Your task to perform on an android device: check storage Image 0: 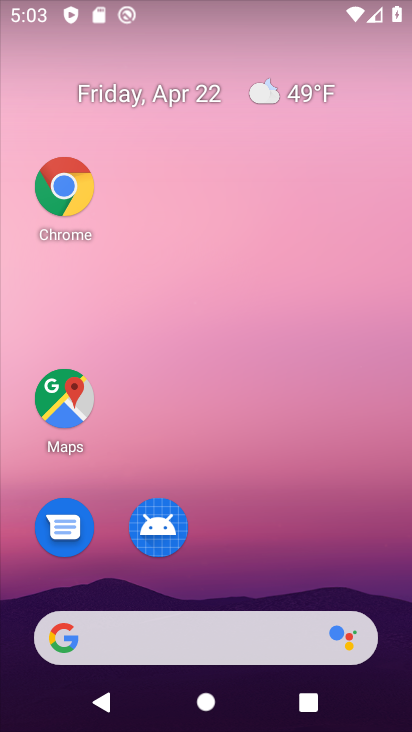
Step 0: drag from (272, 701) to (210, 99)
Your task to perform on an android device: check storage Image 1: 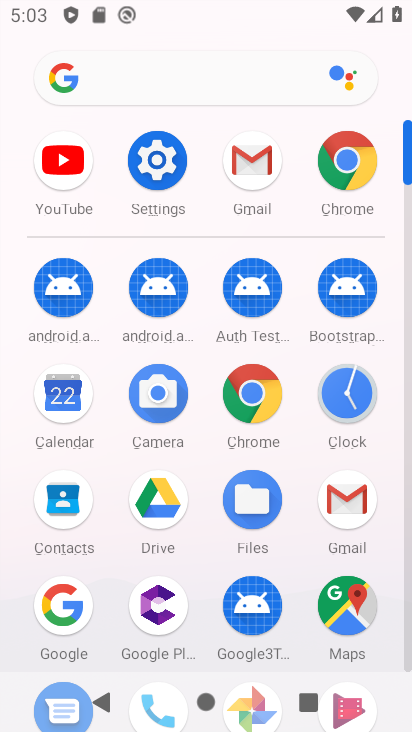
Step 1: click (155, 161)
Your task to perform on an android device: check storage Image 2: 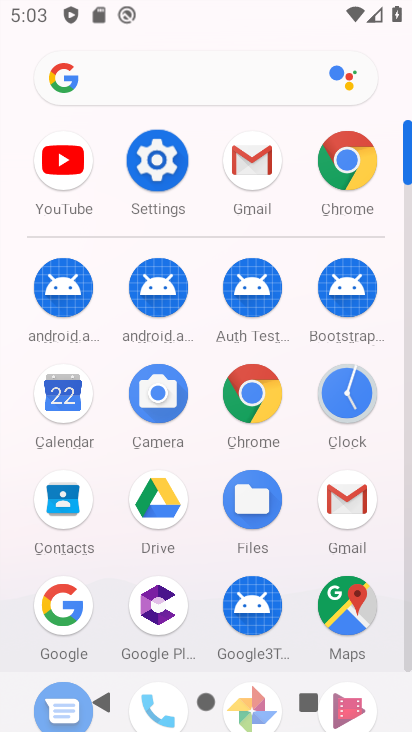
Step 2: click (155, 161)
Your task to perform on an android device: check storage Image 3: 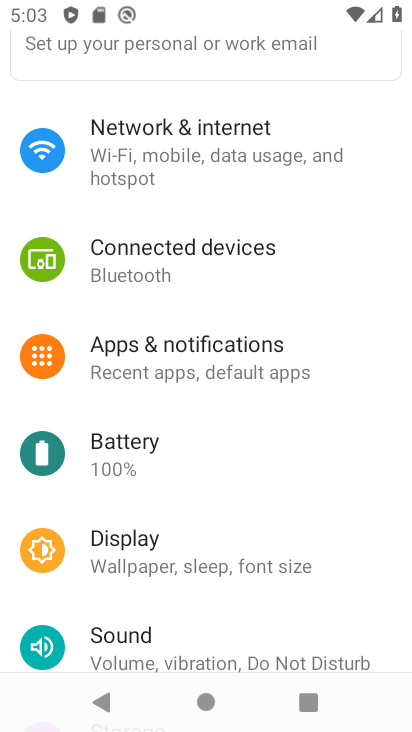
Step 3: drag from (195, 565) to (178, 209)
Your task to perform on an android device: check storage Image 4: 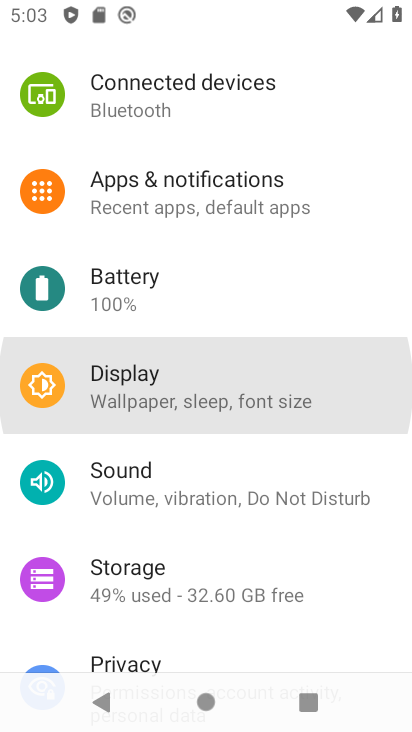
Step 4: drag from (231, 501) to (234, 131)
Your task to perform on an android device: check storage Image 5: 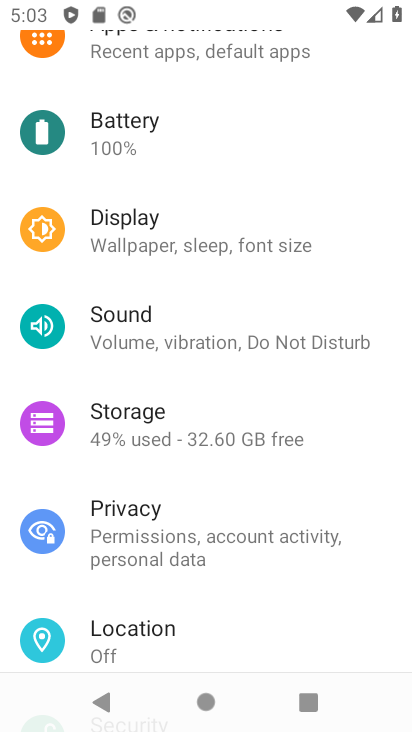
Step 5: click (124, 428)
Your task to perform on an android device: check storage Image 6: 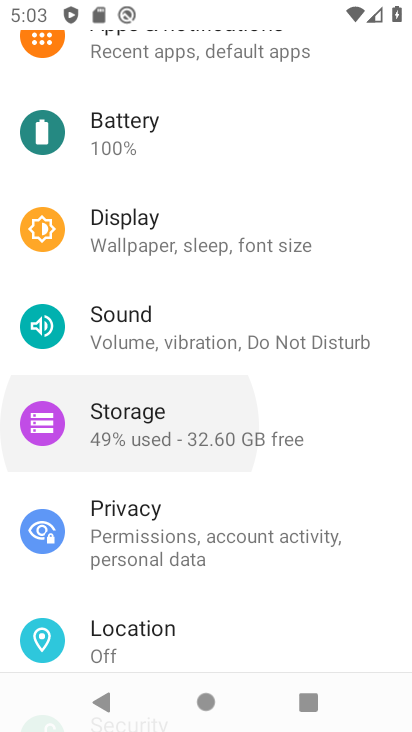
Step 6: click (110, 409)
Your task to perform on an android device: check storage Image 7: 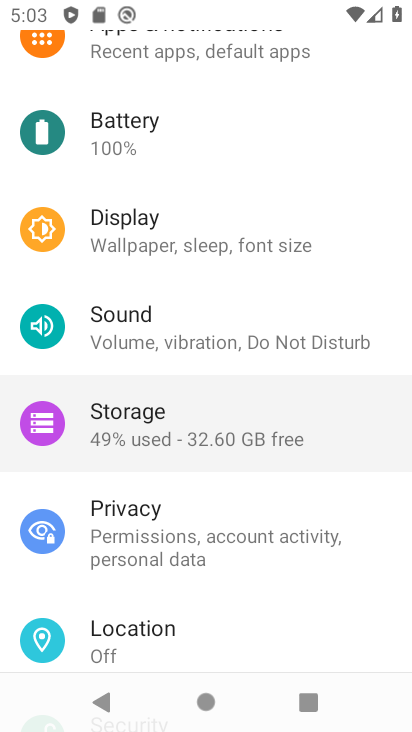
Step 7: click (121, 419)
Your task to perform on an android device: check storage Image 8: 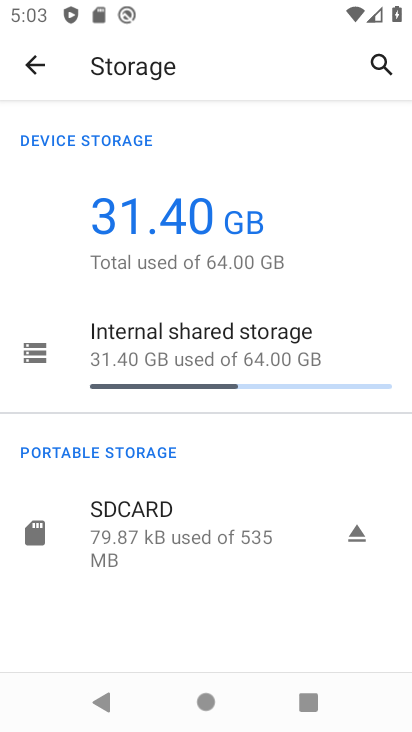
Step 8: task complete